Your task to perform on an android device: turn off smart reply in the gmail app Image 0: 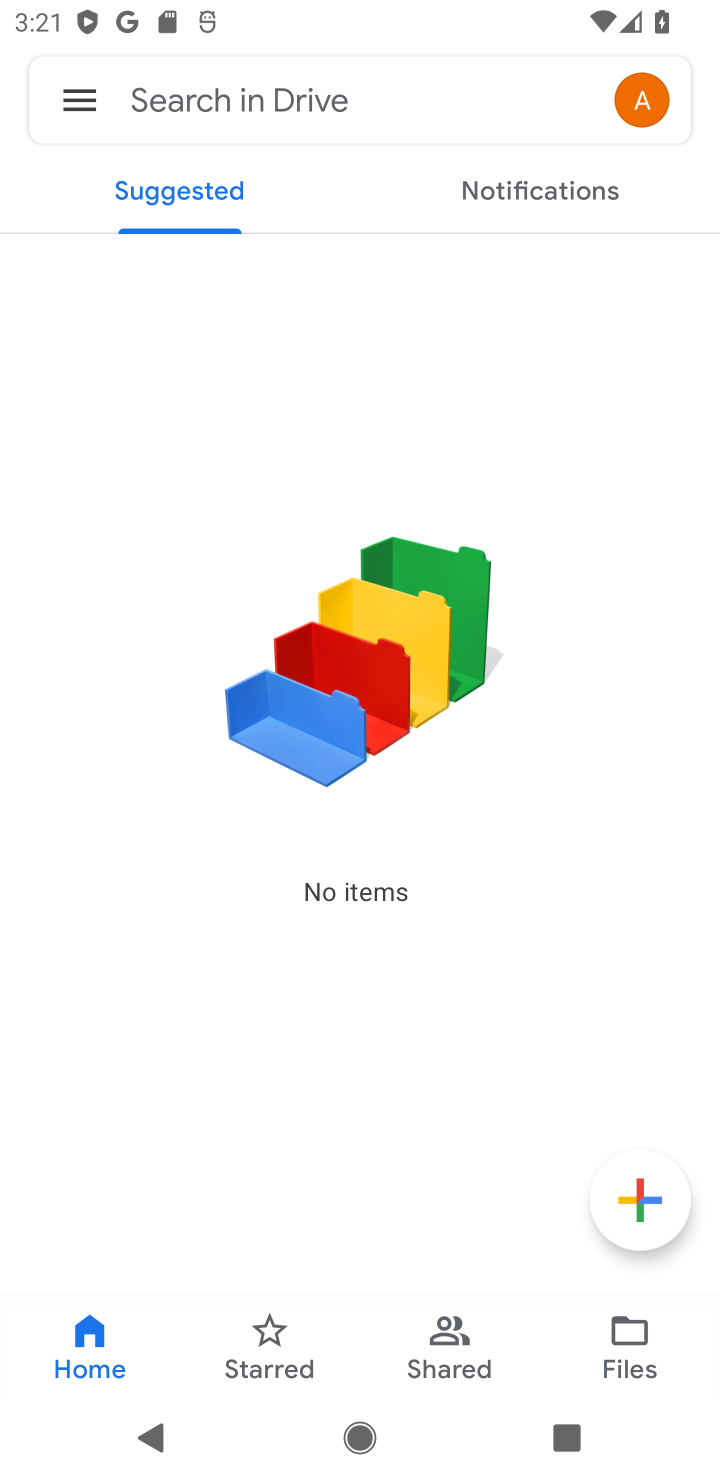
Step 0: press home button
Your task to perform on an android device: turn off smart reply in the gmail app Image 1: 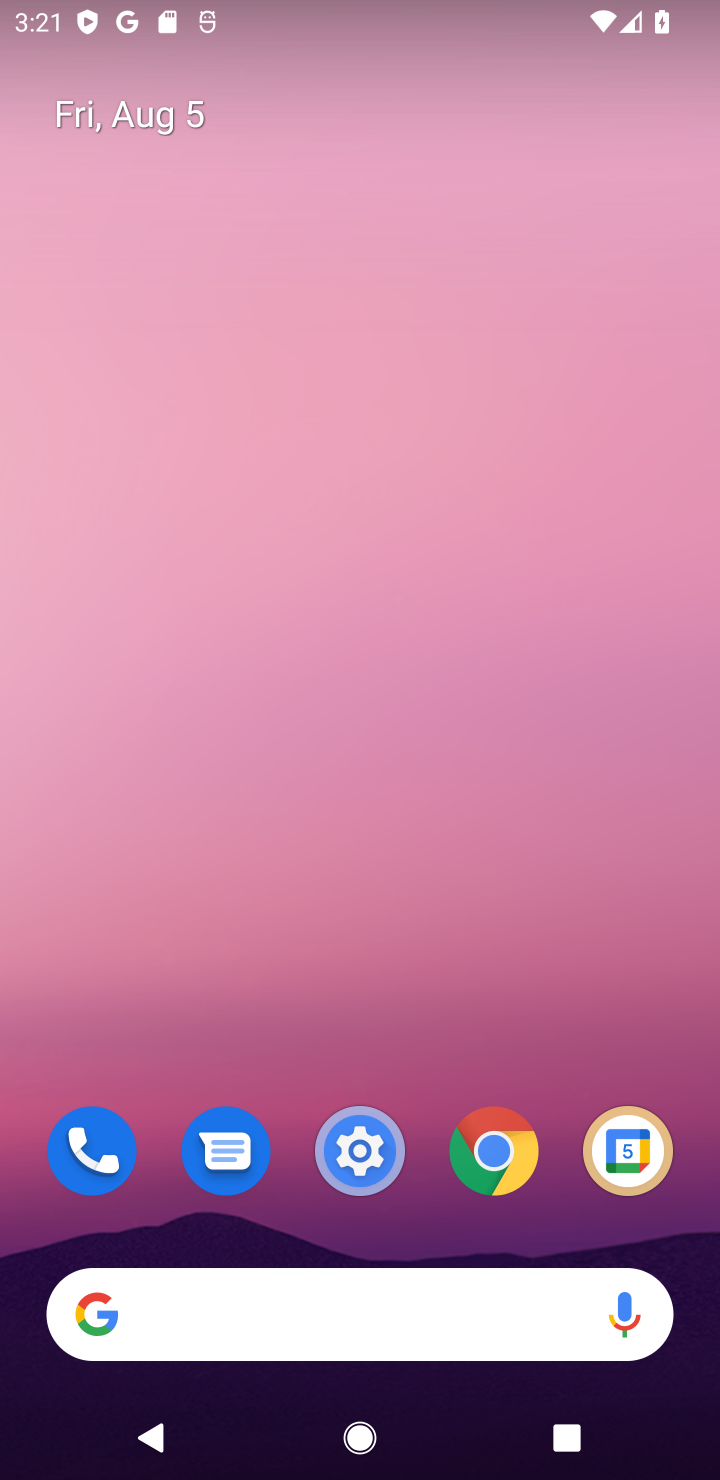
Step 1: drag from (268, 1014) to (264, 122)
Your task to perform on an android device: turn off smart reply in the gmail app Image 2: 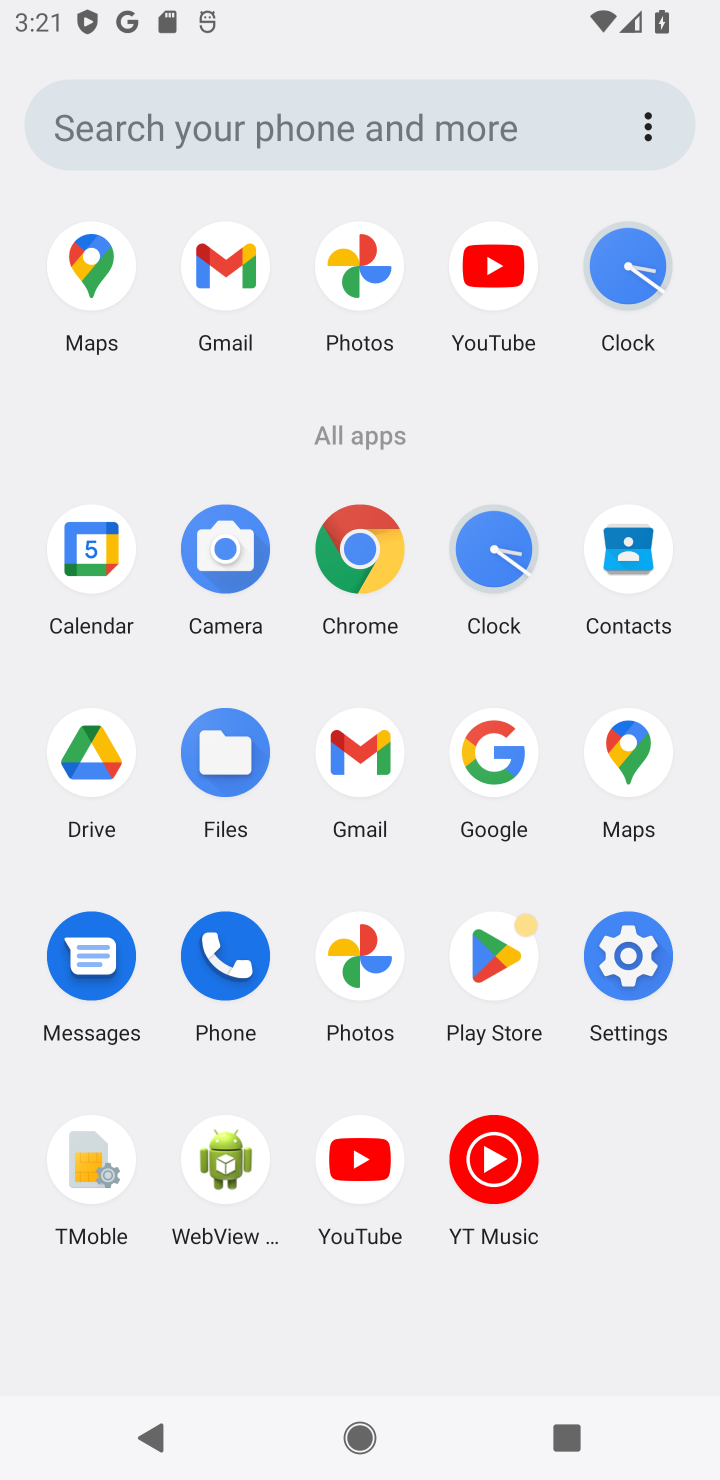
Step 2: click (380, 750)
Your task to perform on an android device: turn off smart reply in the gmail app Image 3: 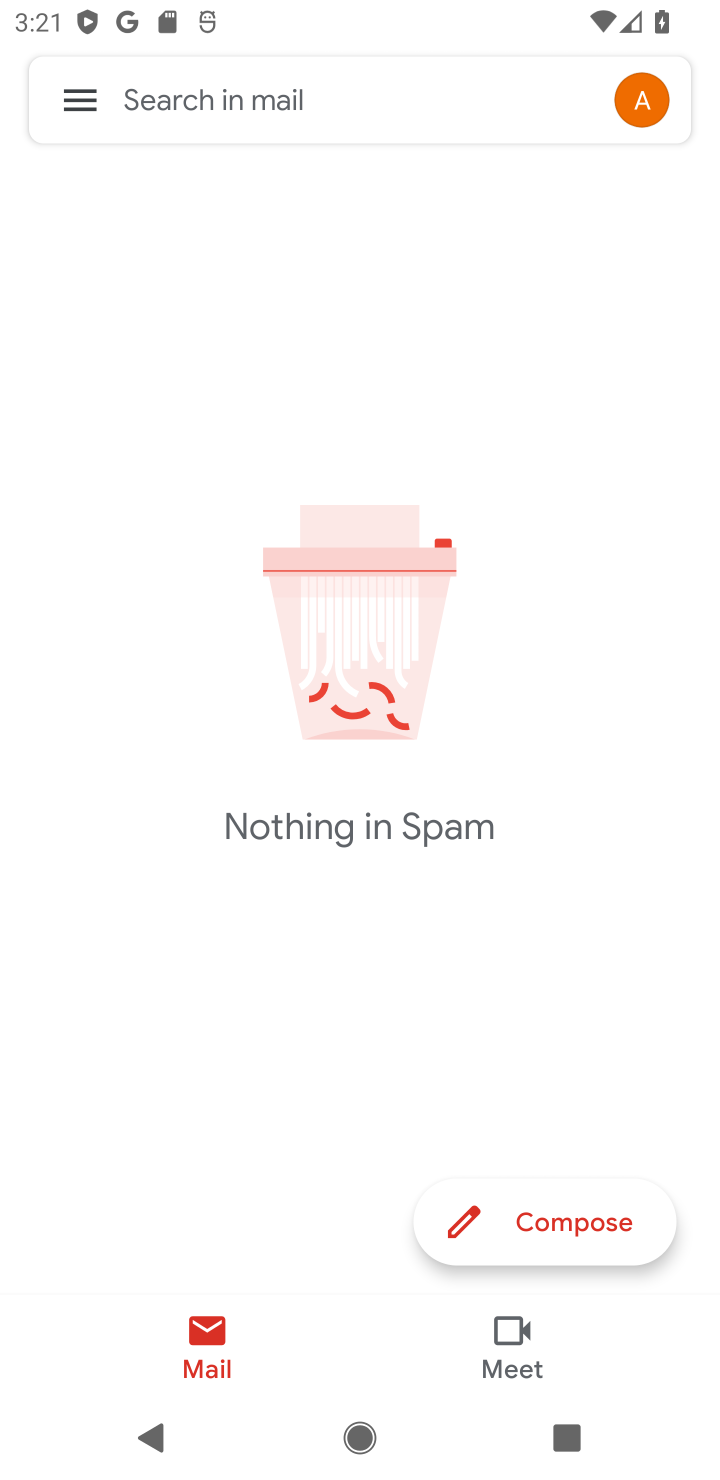
Step 3: click (89, 95)
Your task to perform on an android device: turn off smart reply in the gmail app Image 4: 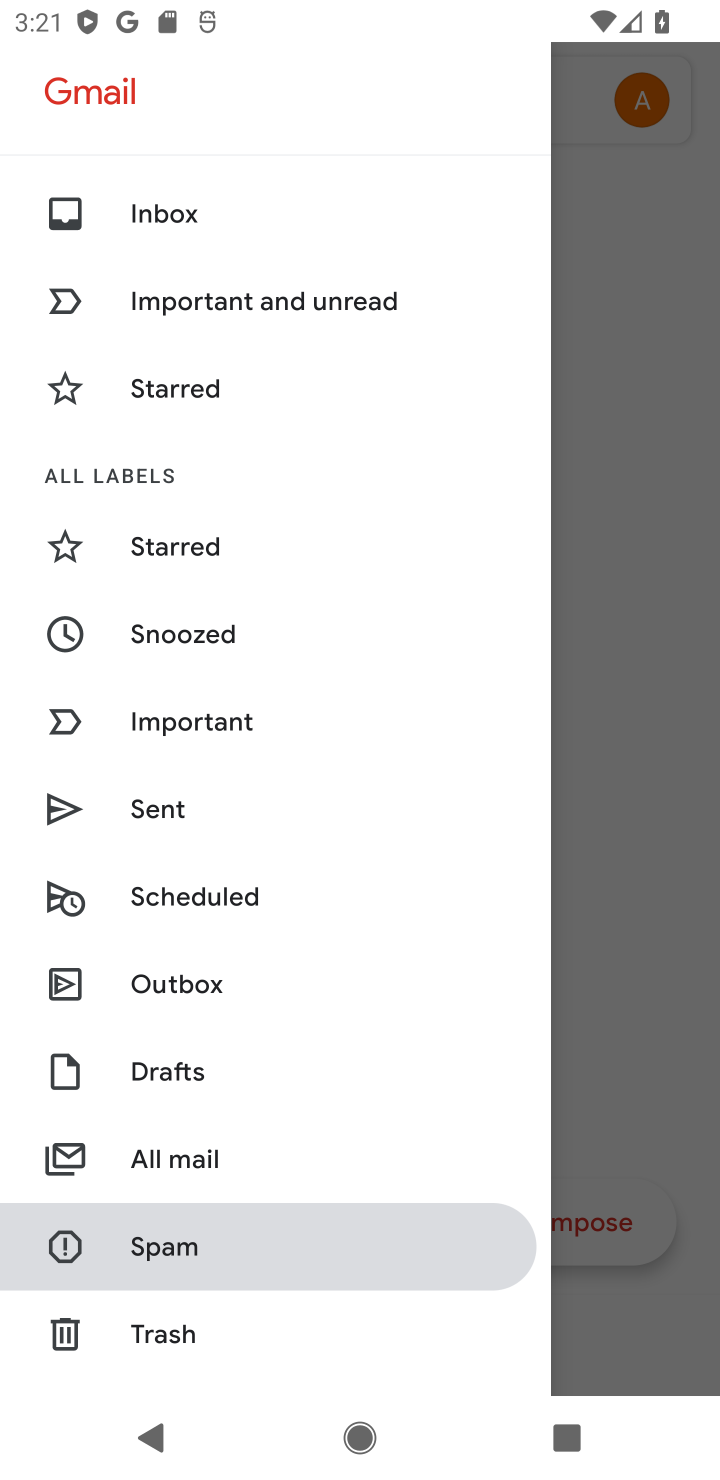
Step 4: drag from (264, 1116) to (258, 738)
Your task to perform on an android device: turn off smart reply in the gmail app Image 5: 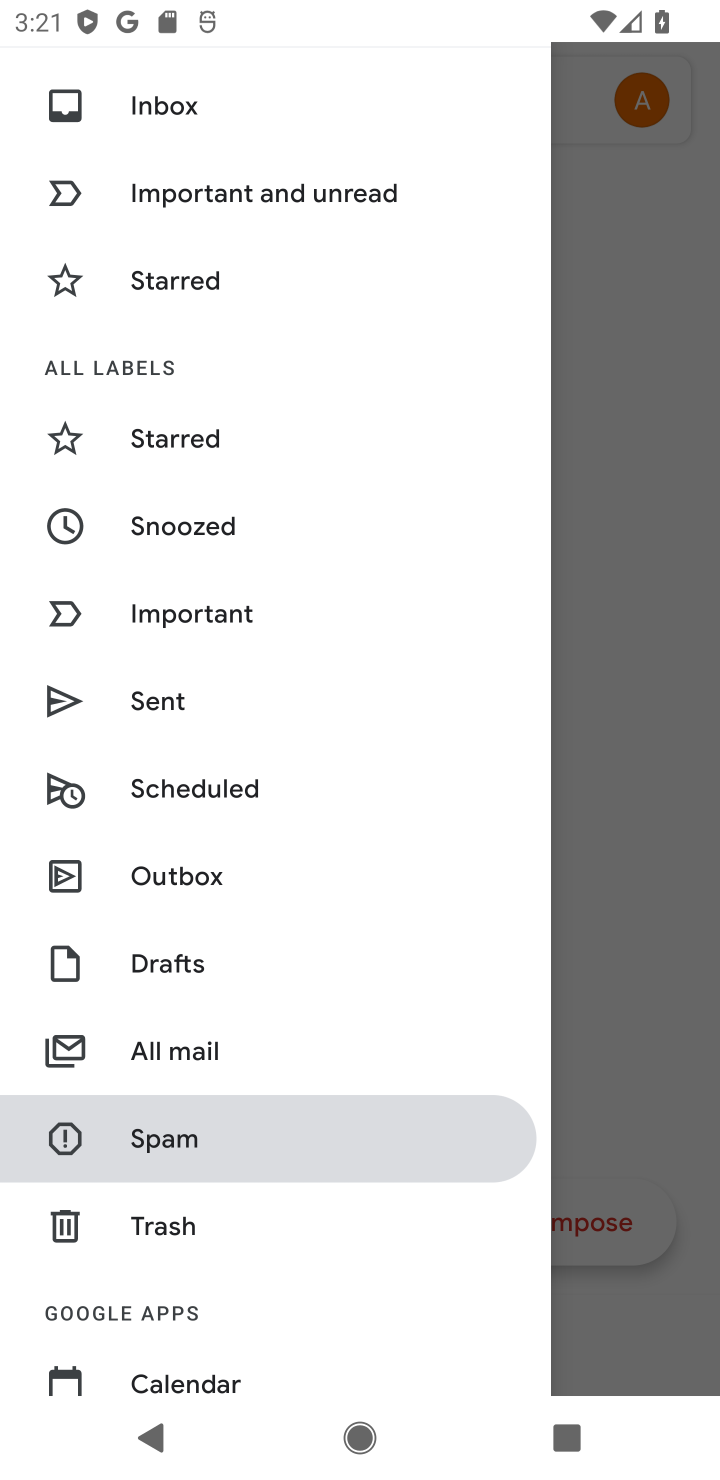
Step 5: drag from (173, 1280) to (230, 684)
Your task to perform on an android device: turn off smart reply in the gmail app Image 6: 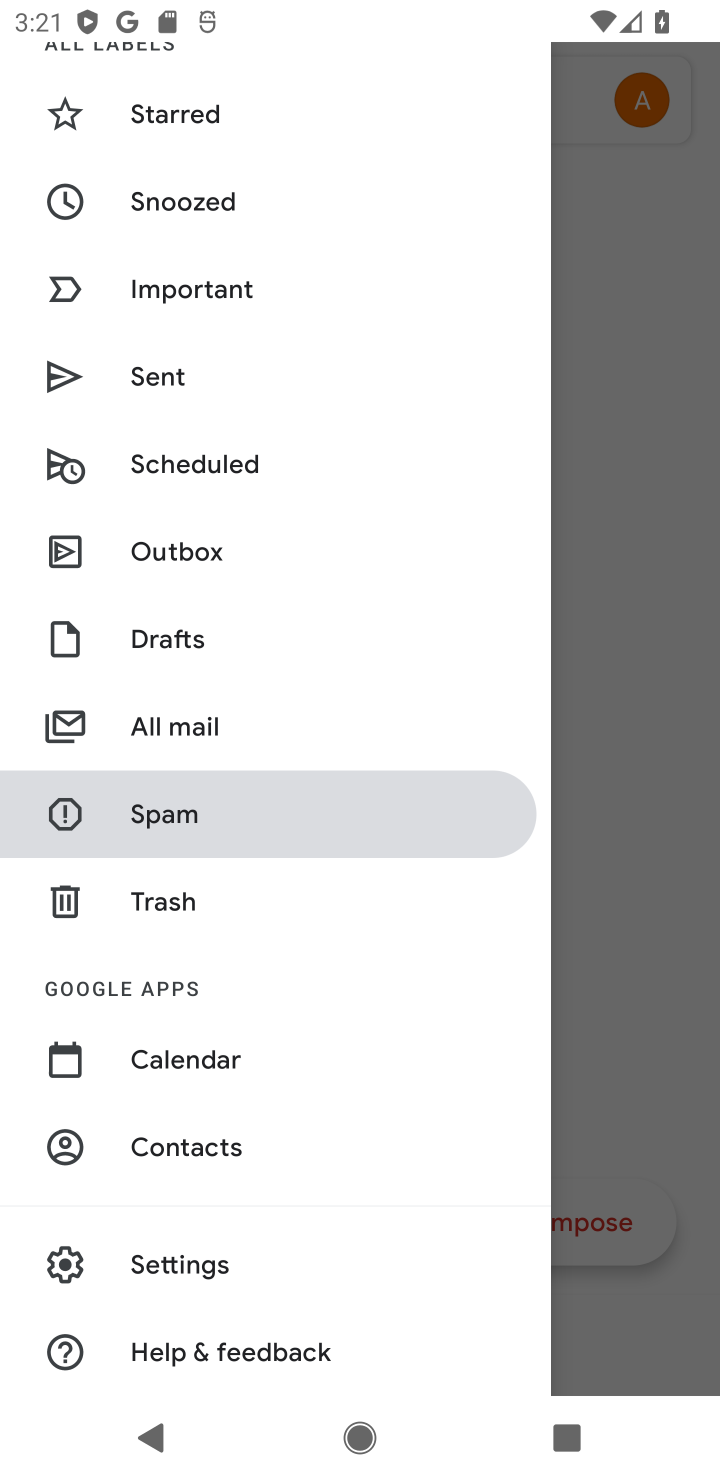
Step 6: click (203, 1267)
Your task to perform on an android device: turn off smart reply in the gmail app Image 7: 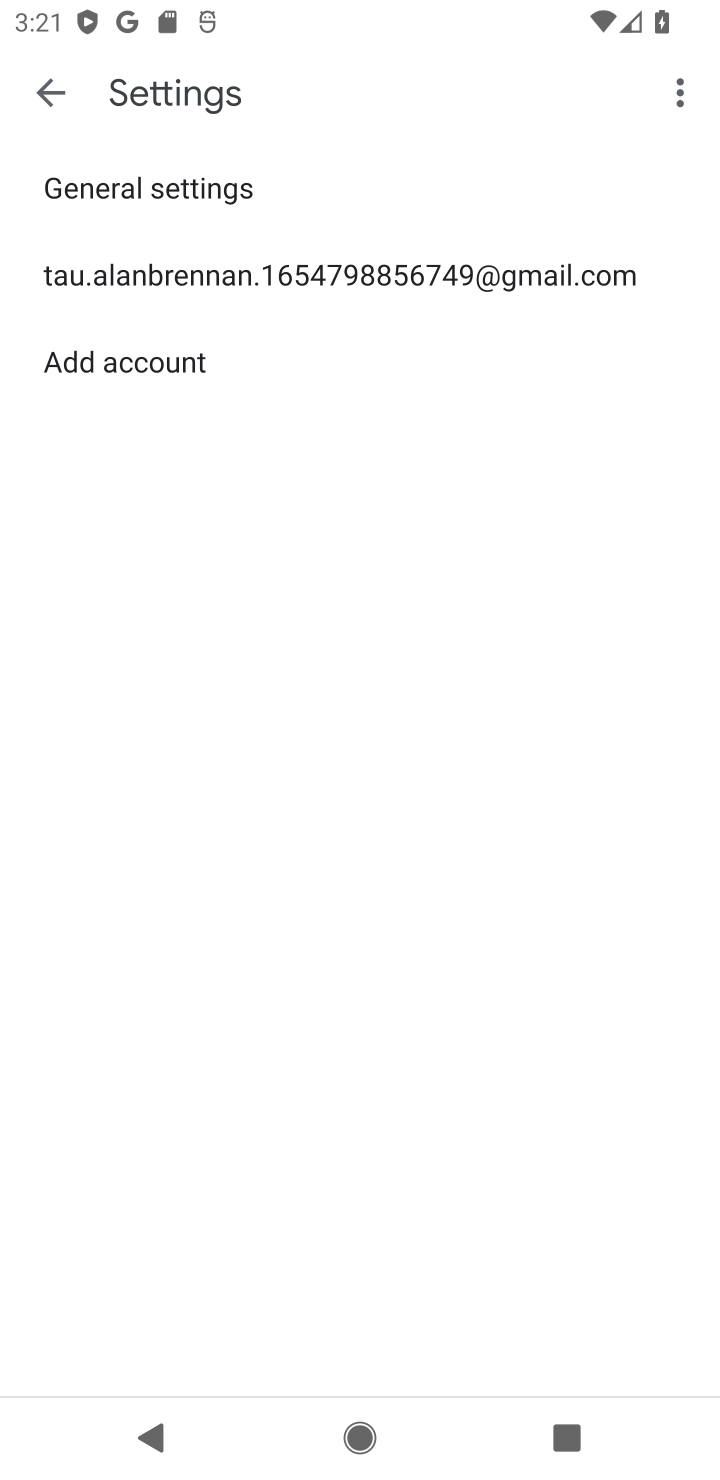
Step 7: click (156, 291)
Your task to perform on an android device: turn off smart reply in the gmail app Image 8: 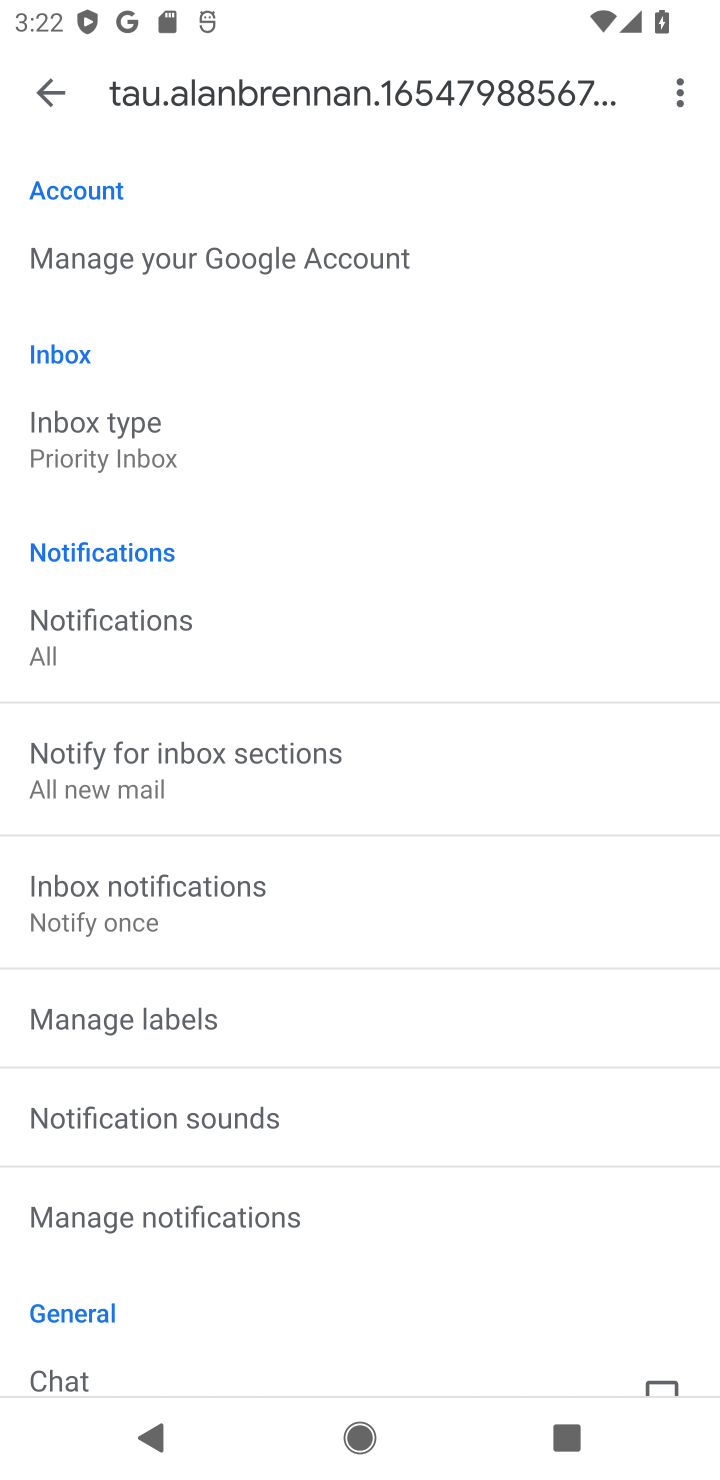
Step 8: drag from (356, 1234) to (387, 341)
Your task to perform on an android device: turn off smart reply in the gmail app Image 9: 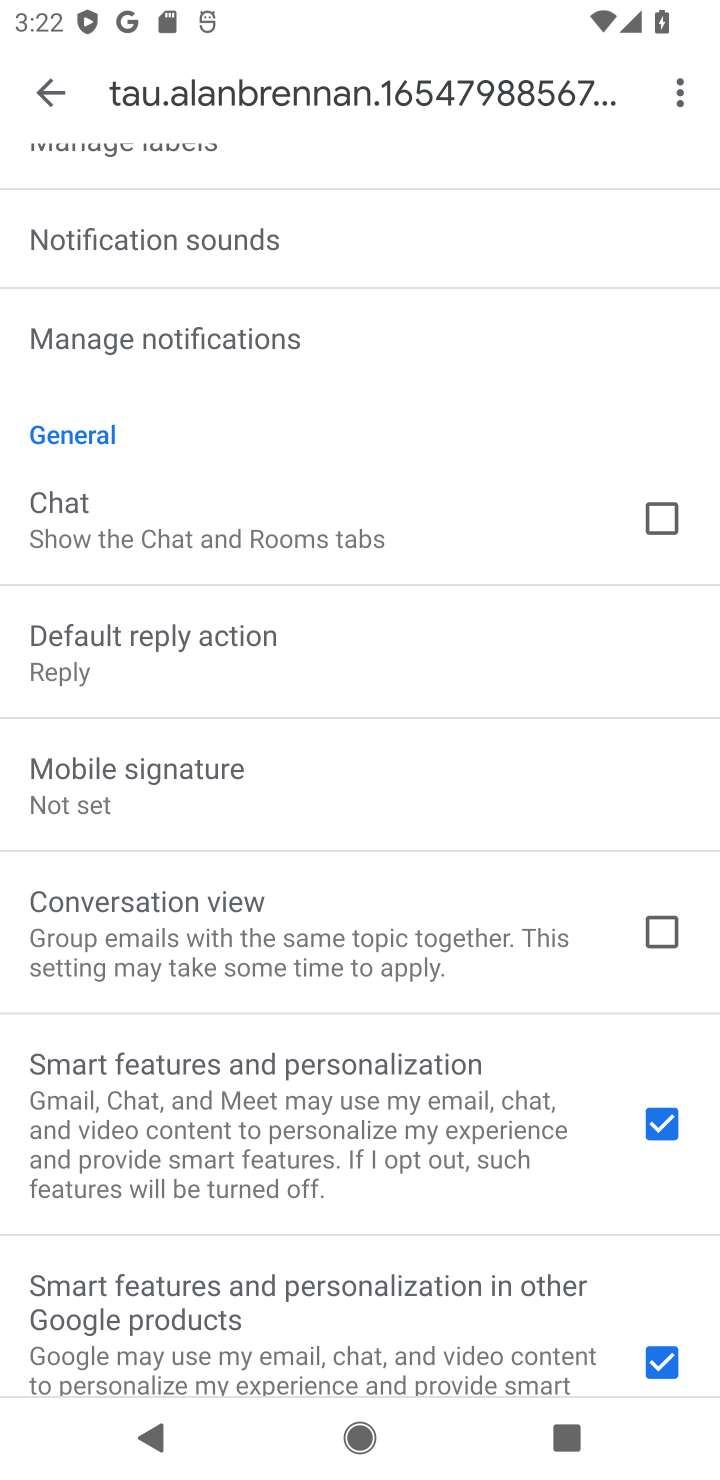
Step 9: drag from (352, 1154) to (356, 780)
Your task to perform on an android device: turn off smart reply in the gmail app Image 10: 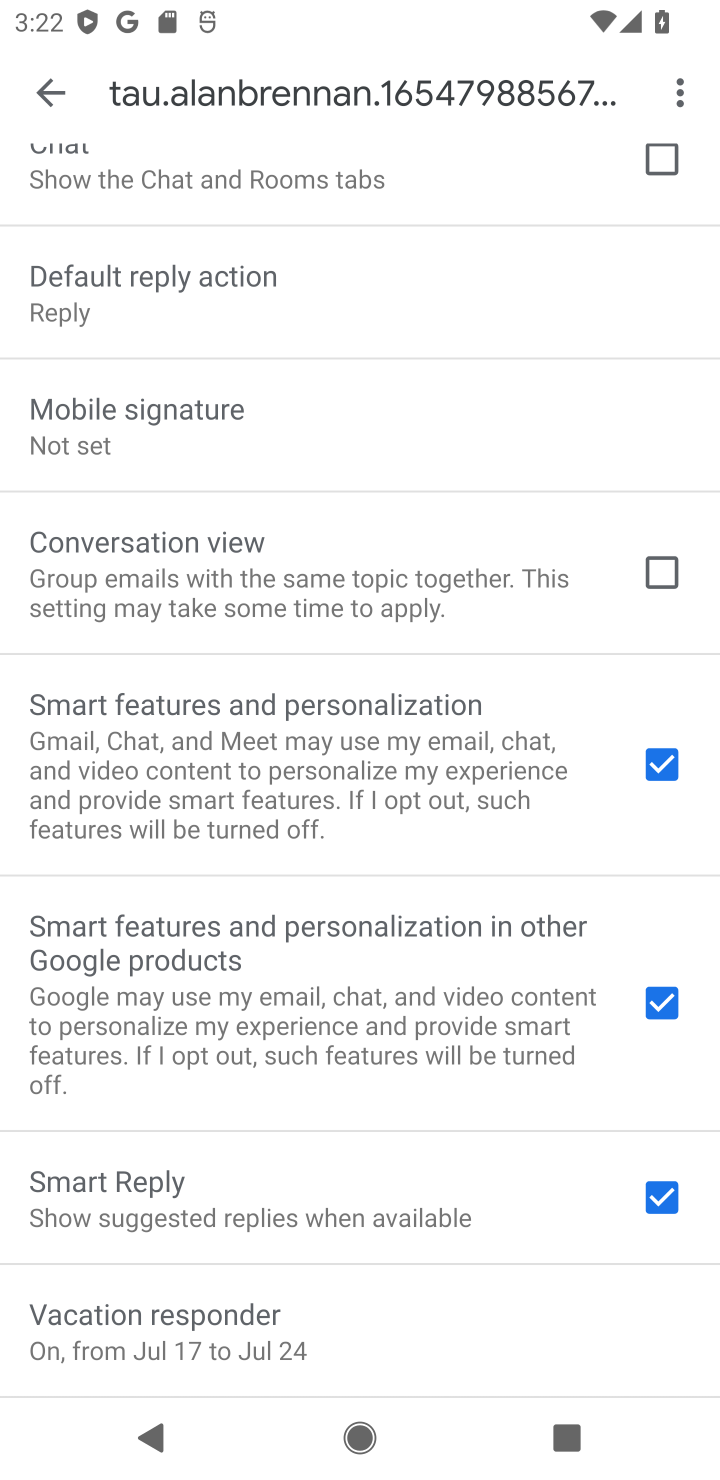
Step 10: click (636, 1193)
Your task to perform on an android device: turn off smart reply in the gmail app Image 11: 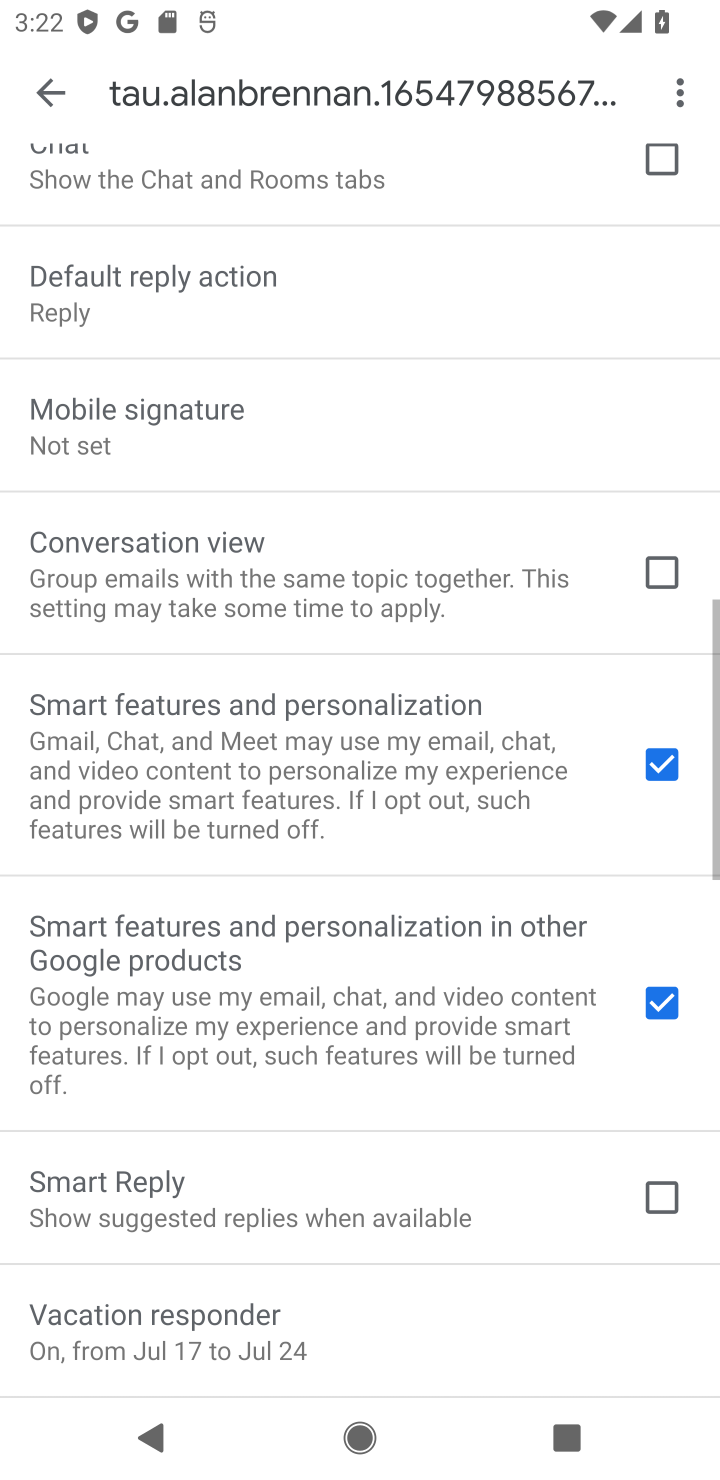
Step 11: task complete